Your task to perform on an android device: set an alarm Image 0: 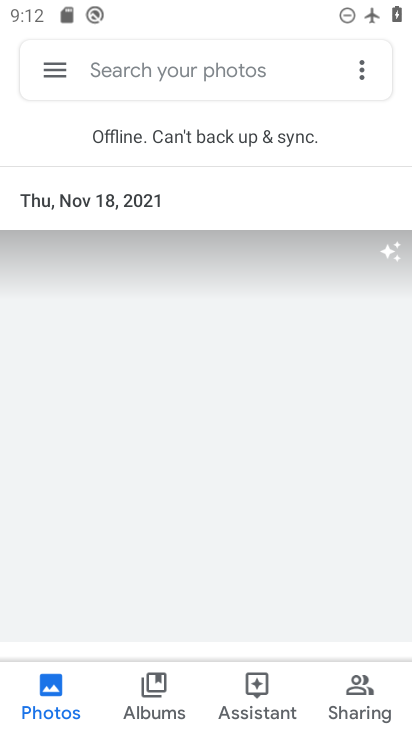
Step 0: press home button
Your task to perform on an android device: set an alarm Image 1: 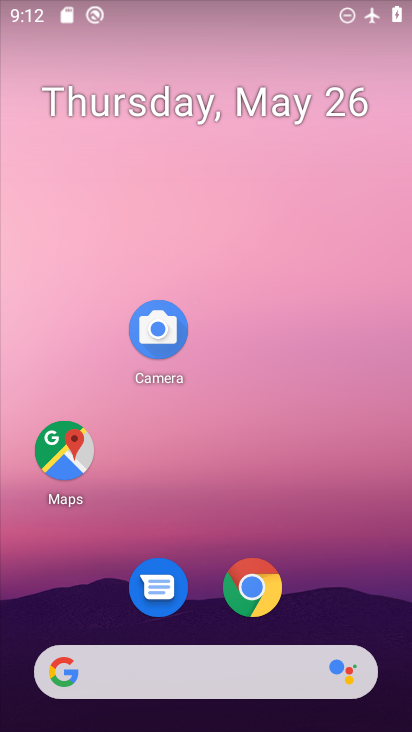
Step 1: drag from (201, 627) to (185, 212)
Your task to perform on an android device: set an alarm Image 2: 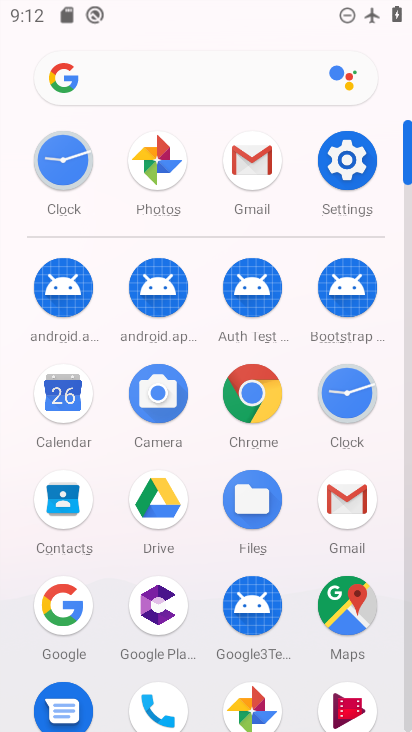
Step 2: click (70, 178)
Your task to perform on an android device: set an alarm Image 3: 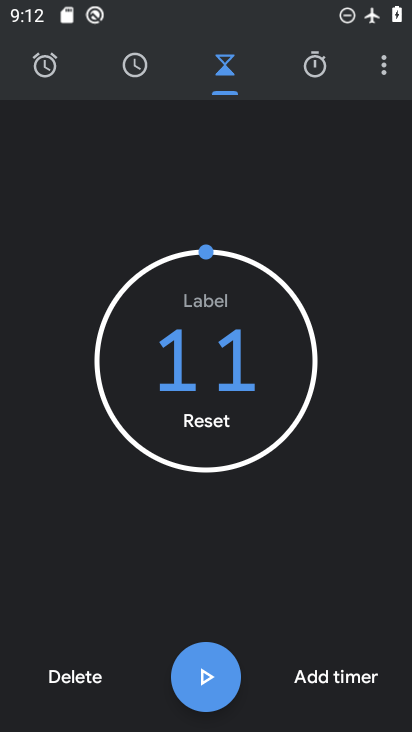
Step 3: click (61, 74)
Your task to perform on an android device: set an alarm Image 4: 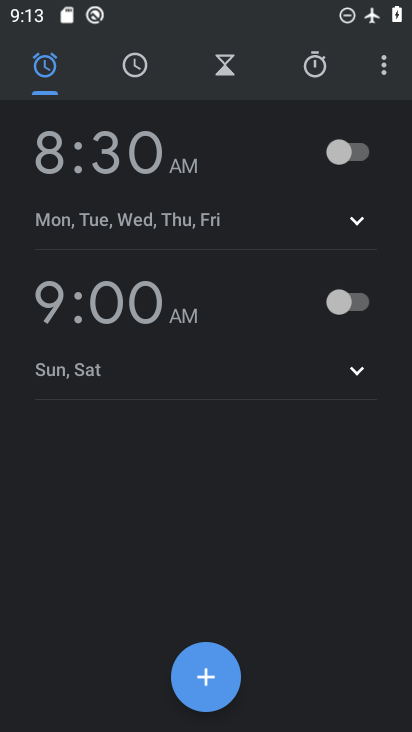
Step 4: click (363, 161)
Your task to perform on an android device: set an alarm Image 5: 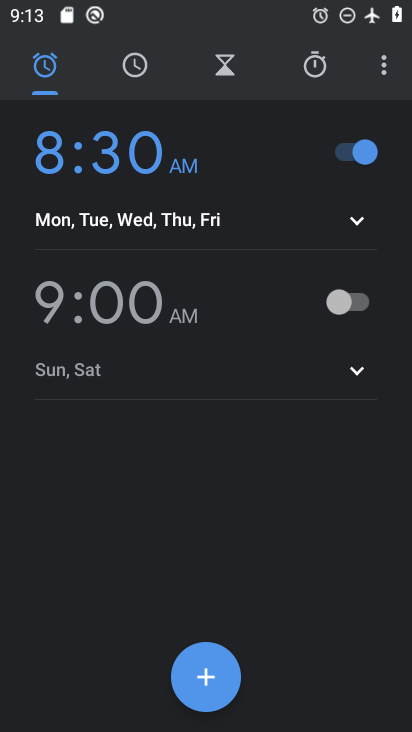
Step 5: task complete